Your task to perform on an android device: turn on javascript in the chrome app Image 0: 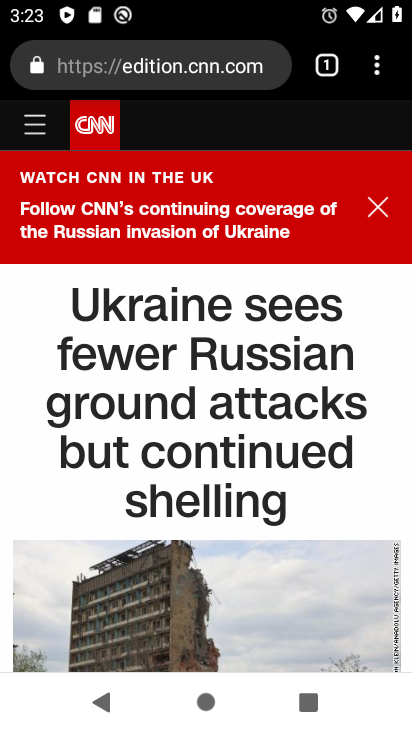
Step 0: task complete